Your task to perform on an android device: Is it going to rain today? Image 0: 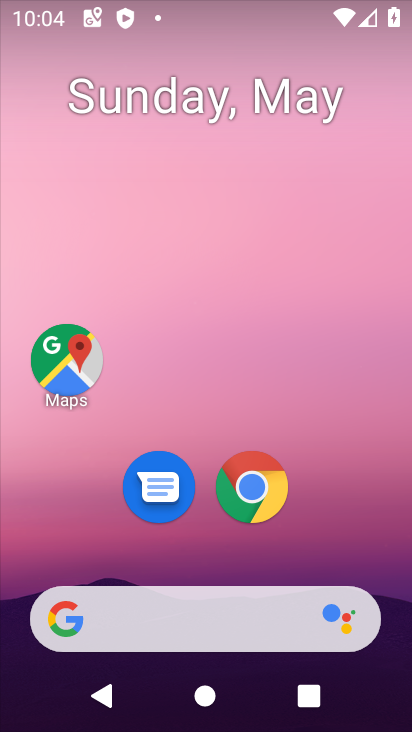
Step 0: click (217, 628)
Your task to perform on an android device: Is it going to rain today? Image 1: 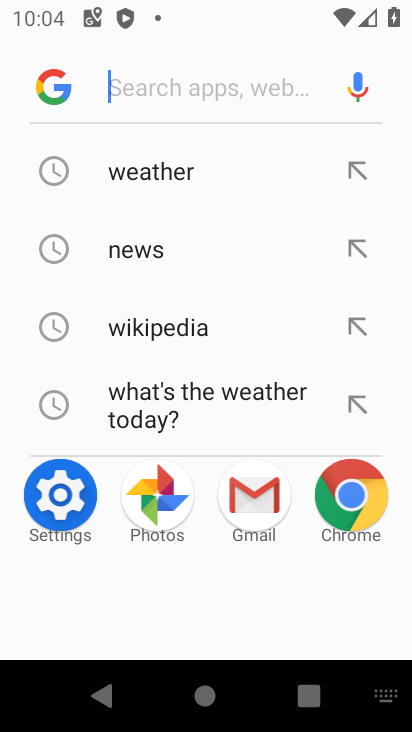
Step 1: click (199, 169)
Your task to perform on an android device: Is it going to rain today? Image 2: 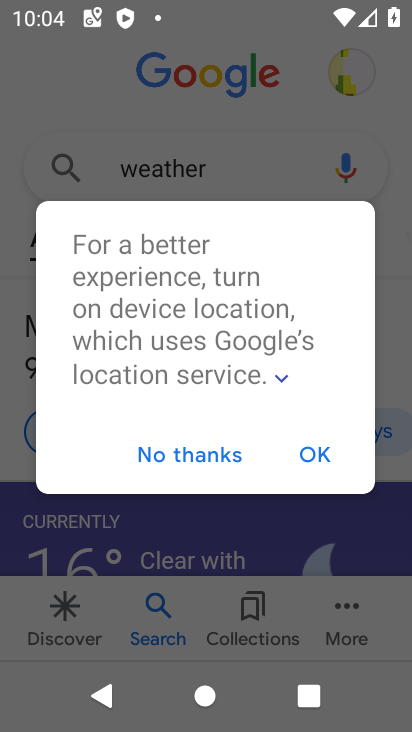
Step 2: click (161, 445)
Your task to perform on an android device: Is it going to rain today? Image 3: 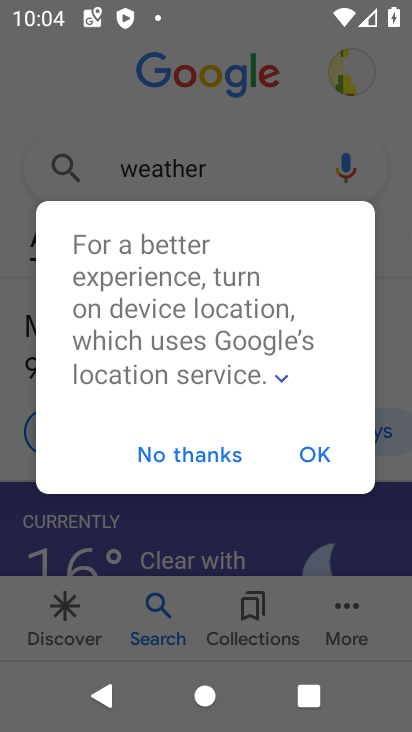
Step 3: click (161, 445)
Your task to perform on an android device: Is it going to rain today? Image 4: 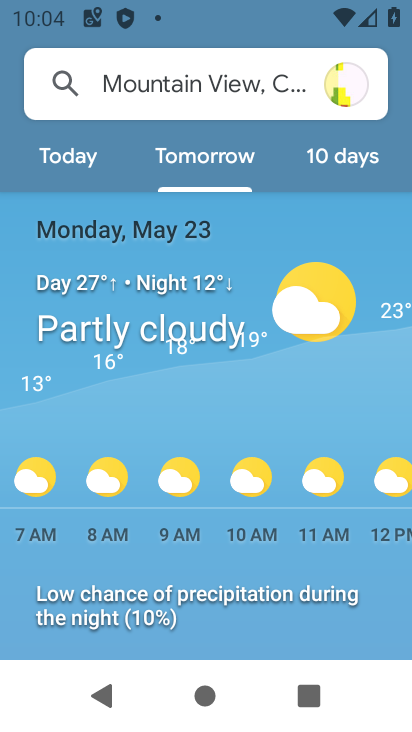
Step 4: click (91, 146)
Your task to perform on an android device: Is it going to rain today? Image 5: 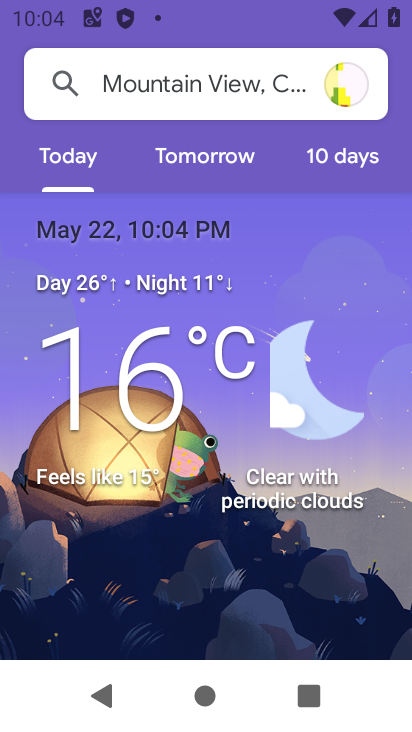
Step 5: task complete